Your task to perform on an android device: turn on airplane mode Image 0: 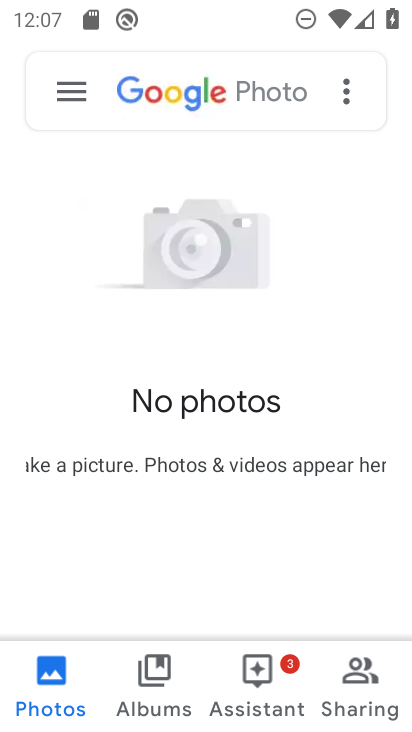
Step 0: press home button
Your task to perform on an android device: turn on airplane mode Image 1: 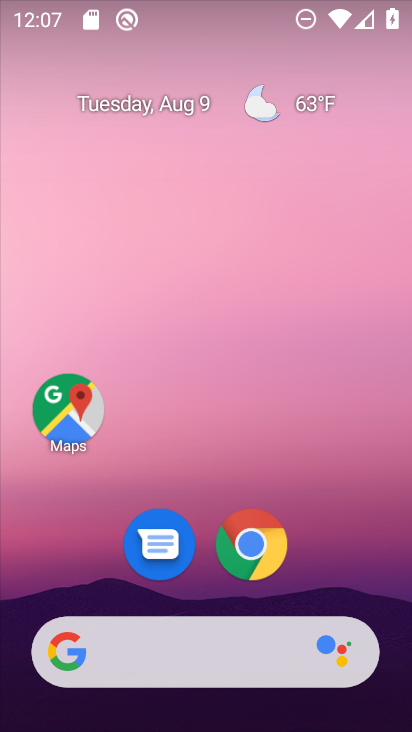
Step 1: drag from (220, 649) to (193, 148)
Your task to perform on an android device: turn on airplane mode Image 2: 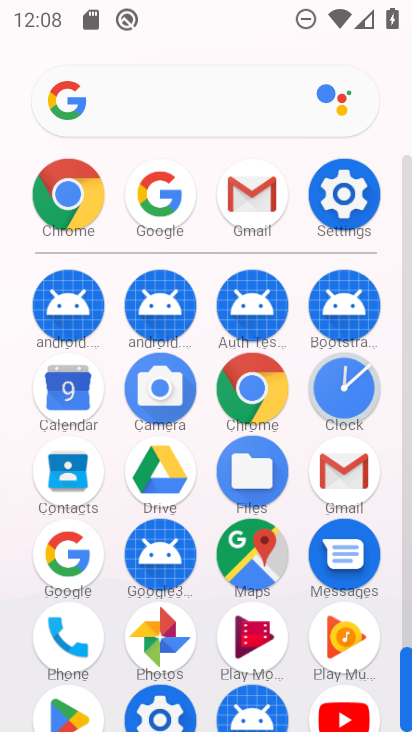
Step 2: click (342, 199)
Your task to perform on an android device: turn on airplane mode Image 3: 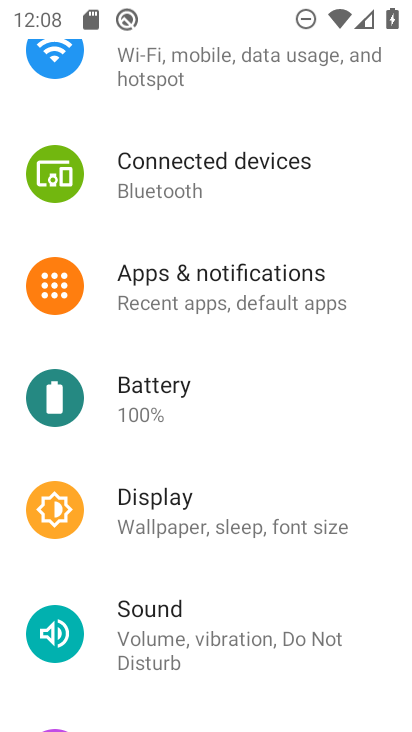
Step 3: drag from (240, 310) to (216, 420)
Your task to perform on an android device: turn on airplane mode Image 4: 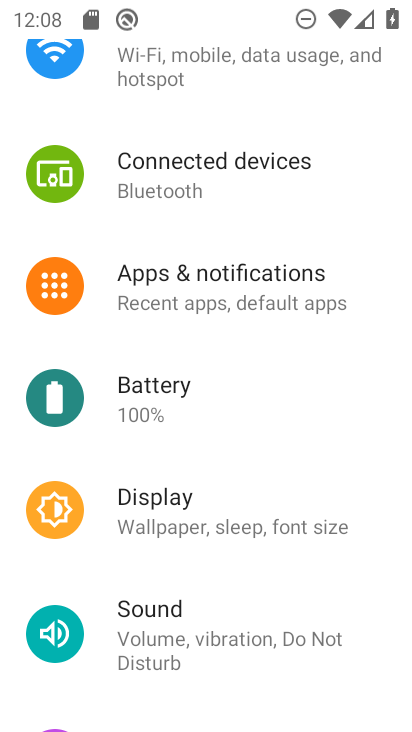
Step 4: drag from (249, 226) to (262, 319)
Your task to perform on an android device: turn on airplane mode Image 5: 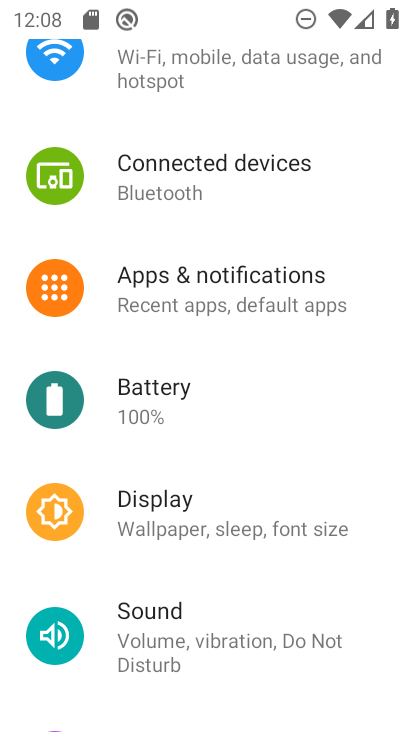
Step 5: click (179, 71)
Your task to perform on an android device: turn on airplane mode Image 6: 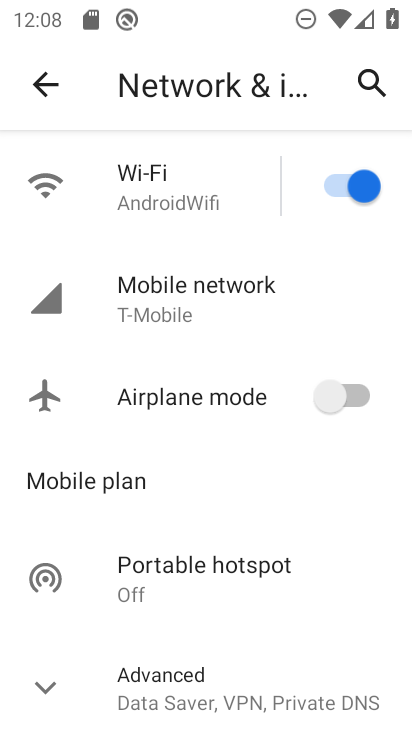
Step 6: click (332, 396)
Your task to perform on an android device: turn on airplane mode Image 7: 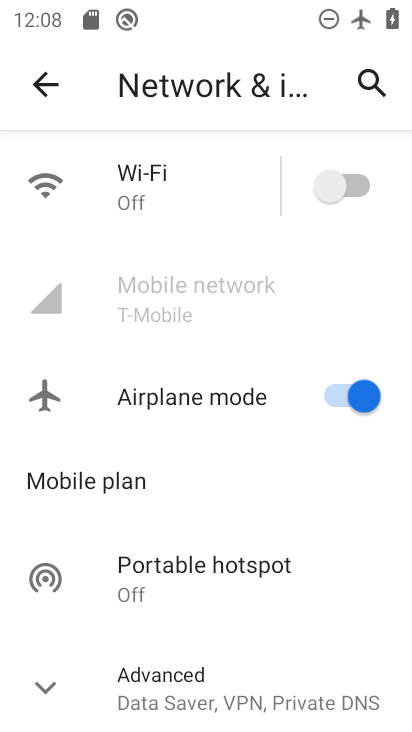
Step 7: task complete